Your task to perform on an android device: install app "Duolingo: language lessons" Image 0: 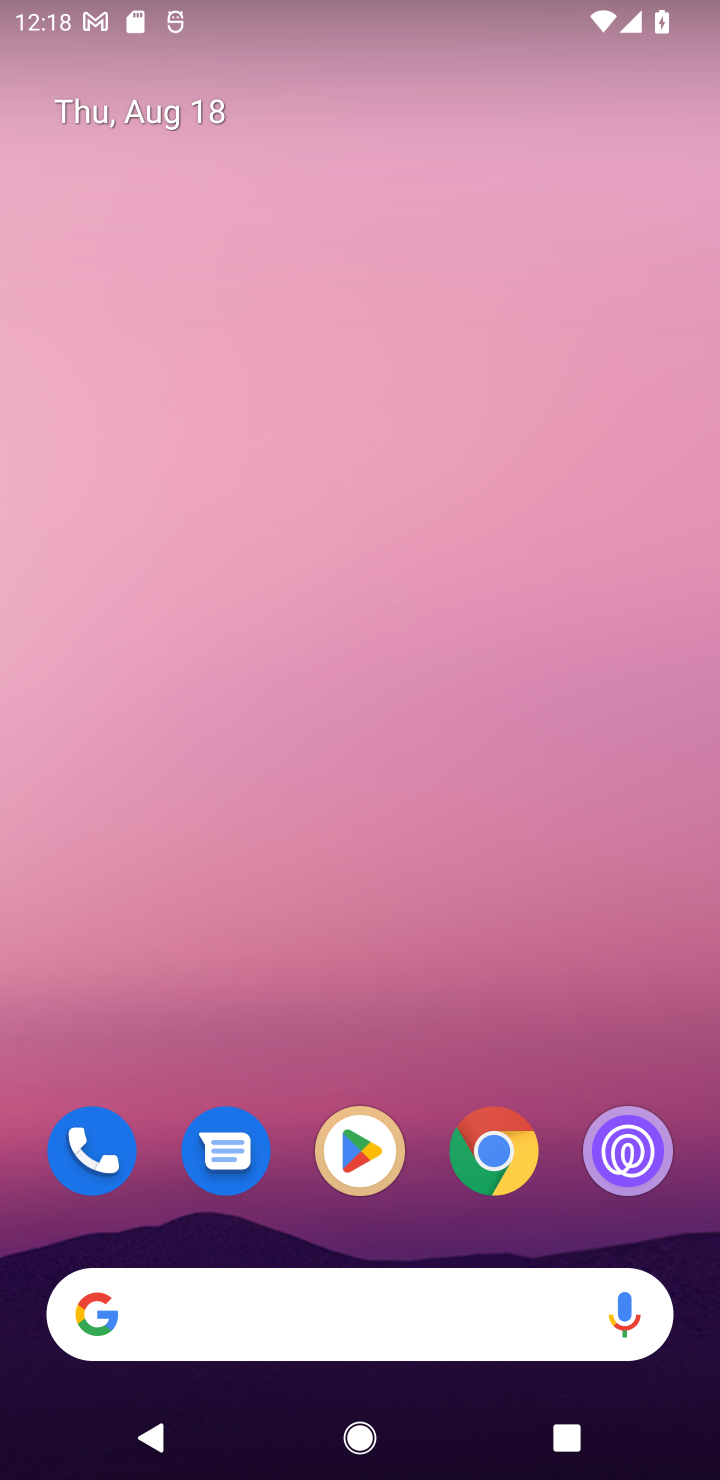
Step 0: click (369, 1228)
Your task to perform on an android device: install app "Duolingo: language lessons" Image 1: 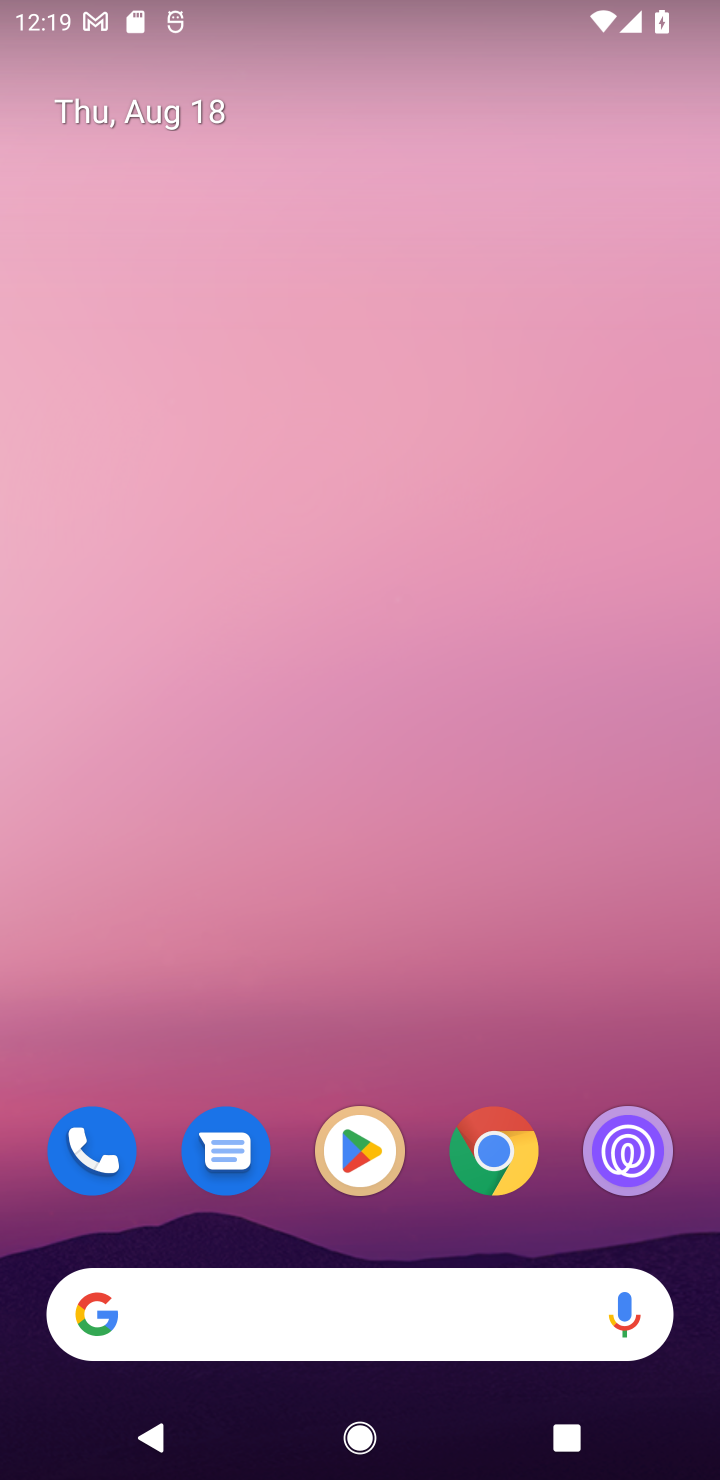
Step 1: click (365, 1152)
Your task to perform on an android device: install app "Duolingo: language lessons" Image 2: 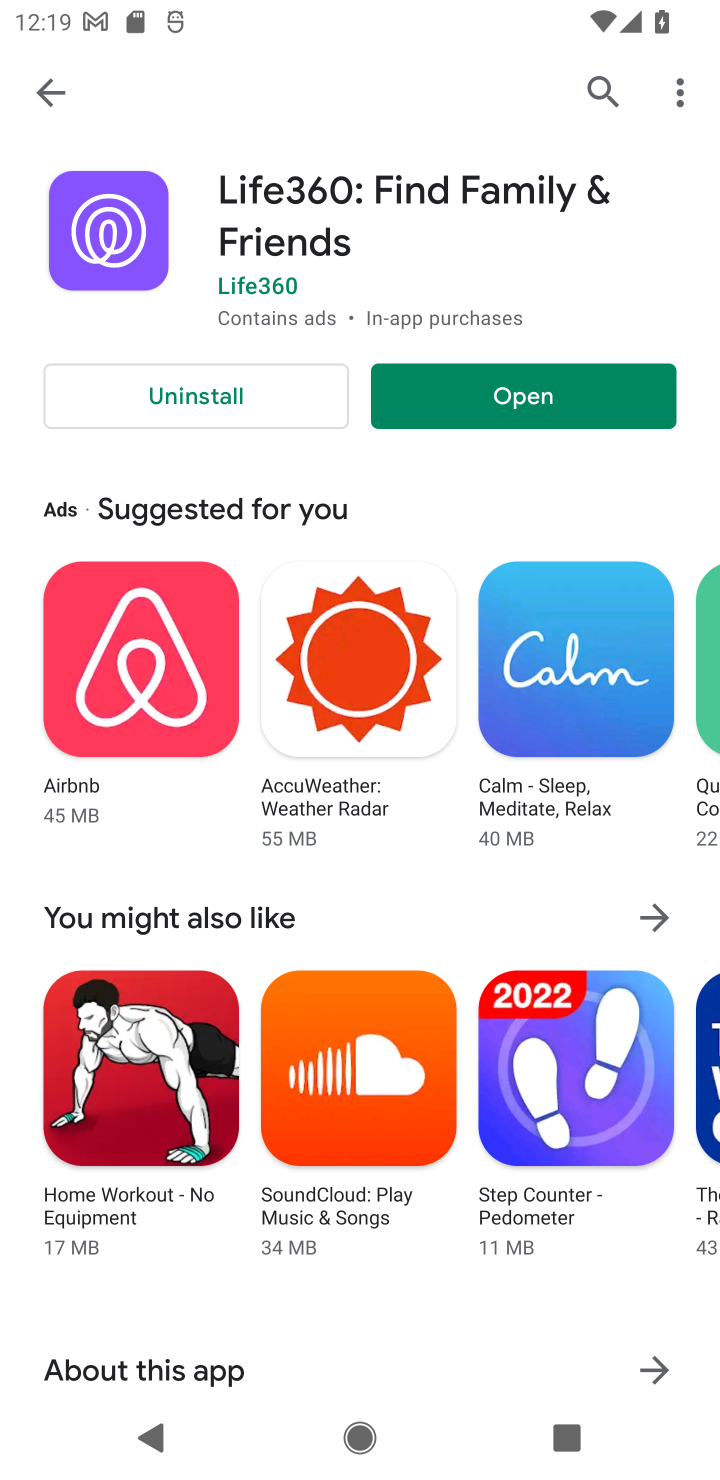
Step 2: click (47, 86)
Your task to perform on an android device: install app "Duolingo: language lessons" Image 3: 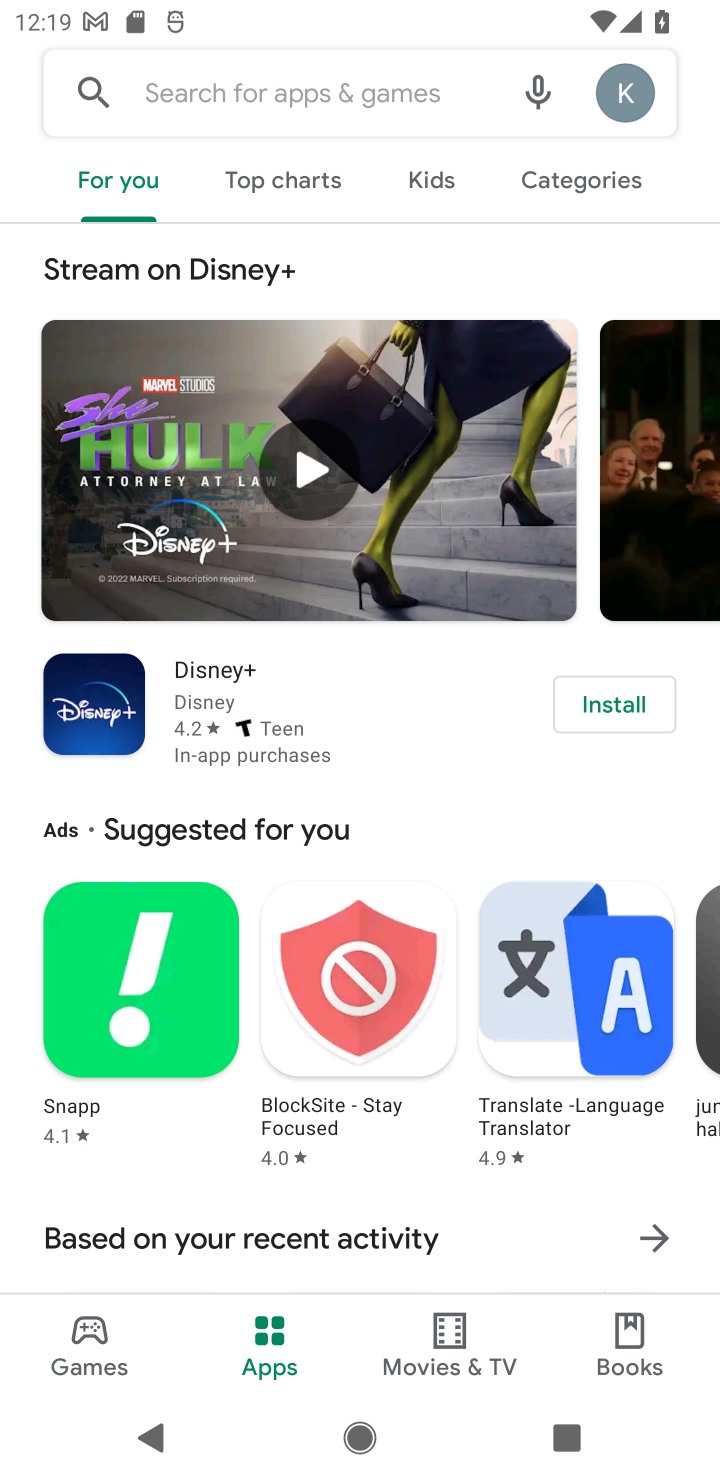
Step 3: click (397, 102)
Your task to perform on an android device: install app "Duolingo: language lessons" Image 4: 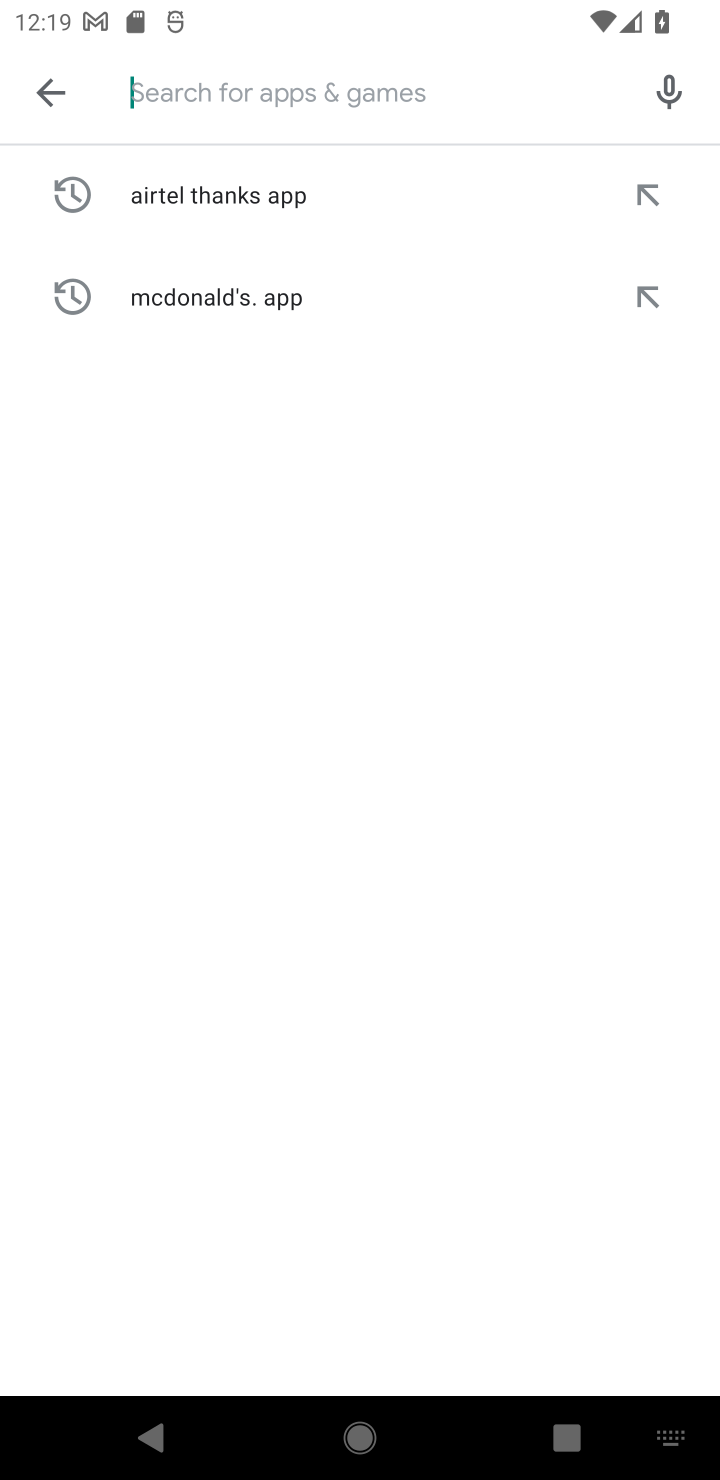
Step 4: type "Duolingo: language lessons"
Your task to perform on an android device: install app "Duolingo: language lessons" Image 5: 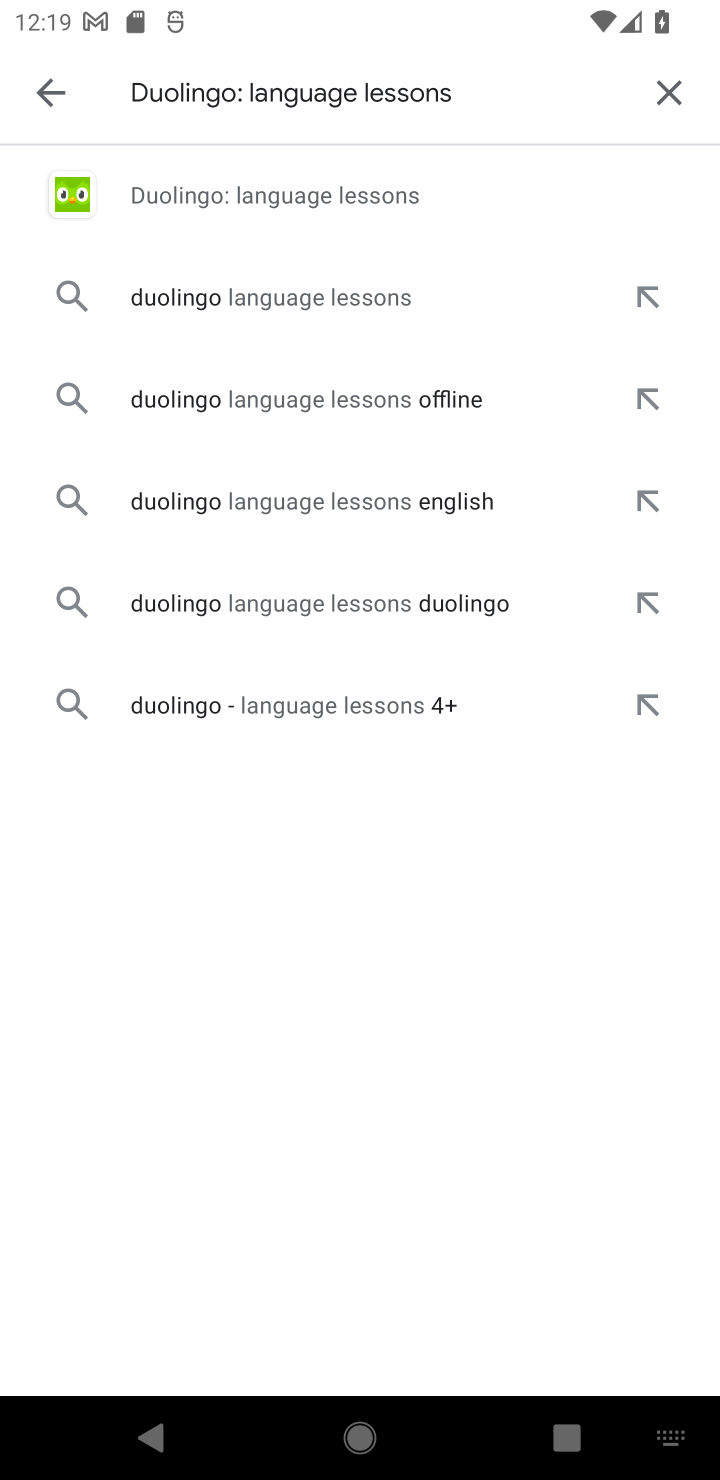
Step 5: click (253, 198)
Your task to perform on an android device: install app "Duolingo: language lessons" Image 6: 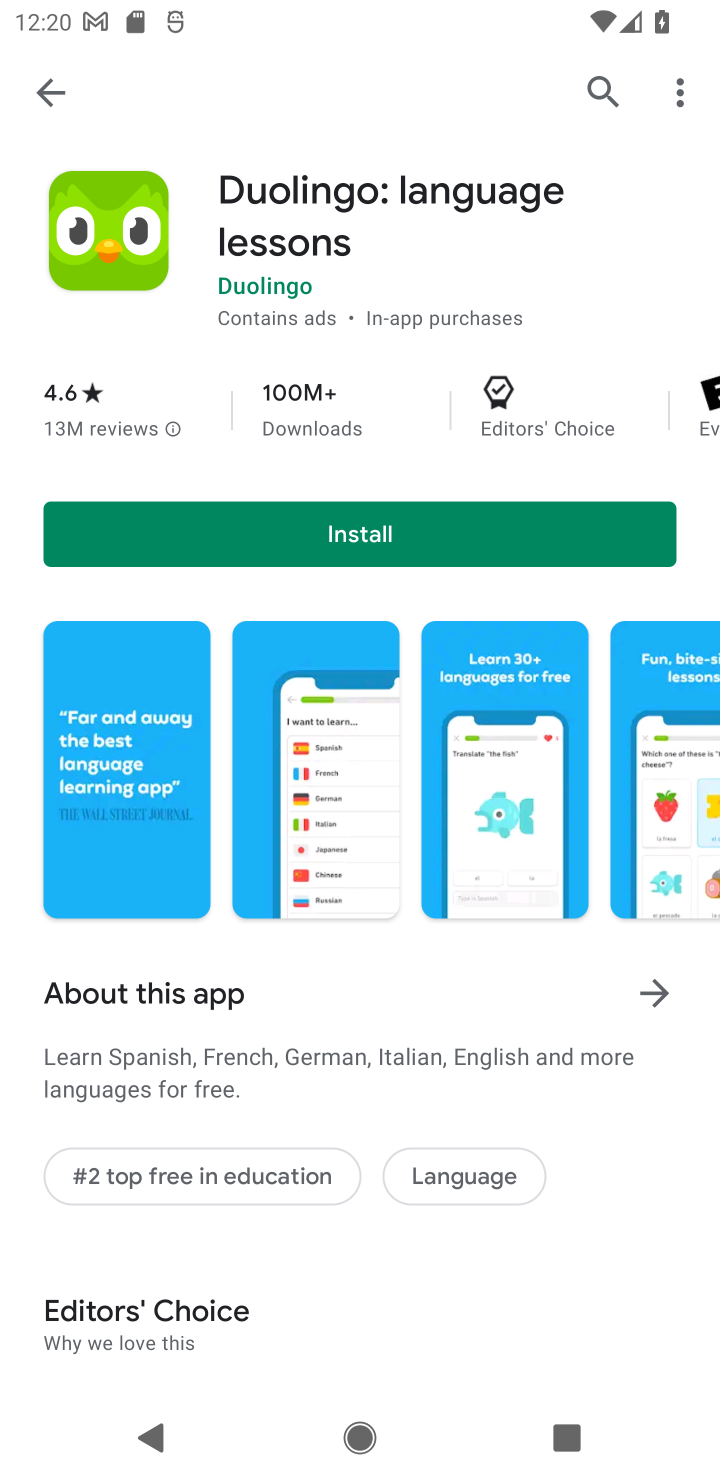
Step 6: click (358, 545)
Your task to perform on an android device: install app "Duolingo: language lessons" Image 7: 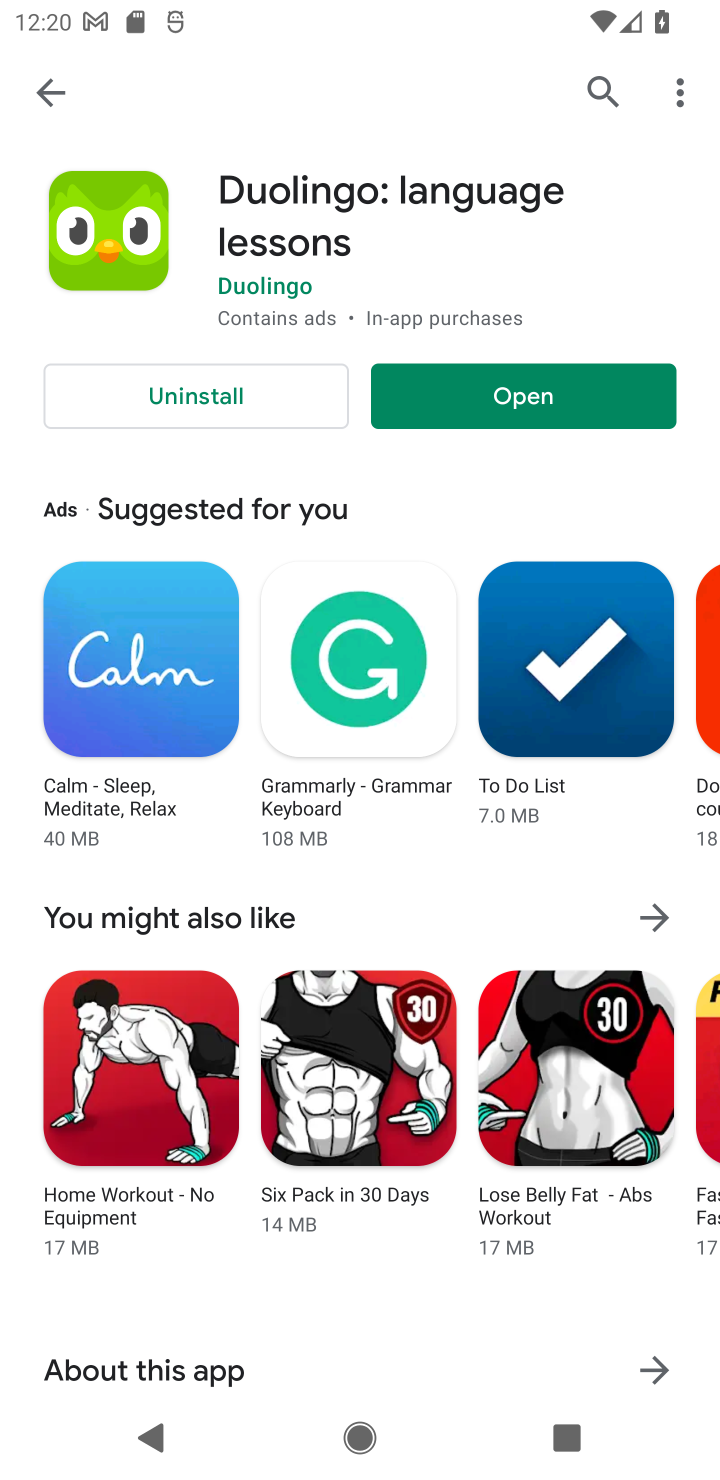
Step 7: click (512, 372)
Your task to perform on an android device: install app "Duolingo: language lessons" Image 8: 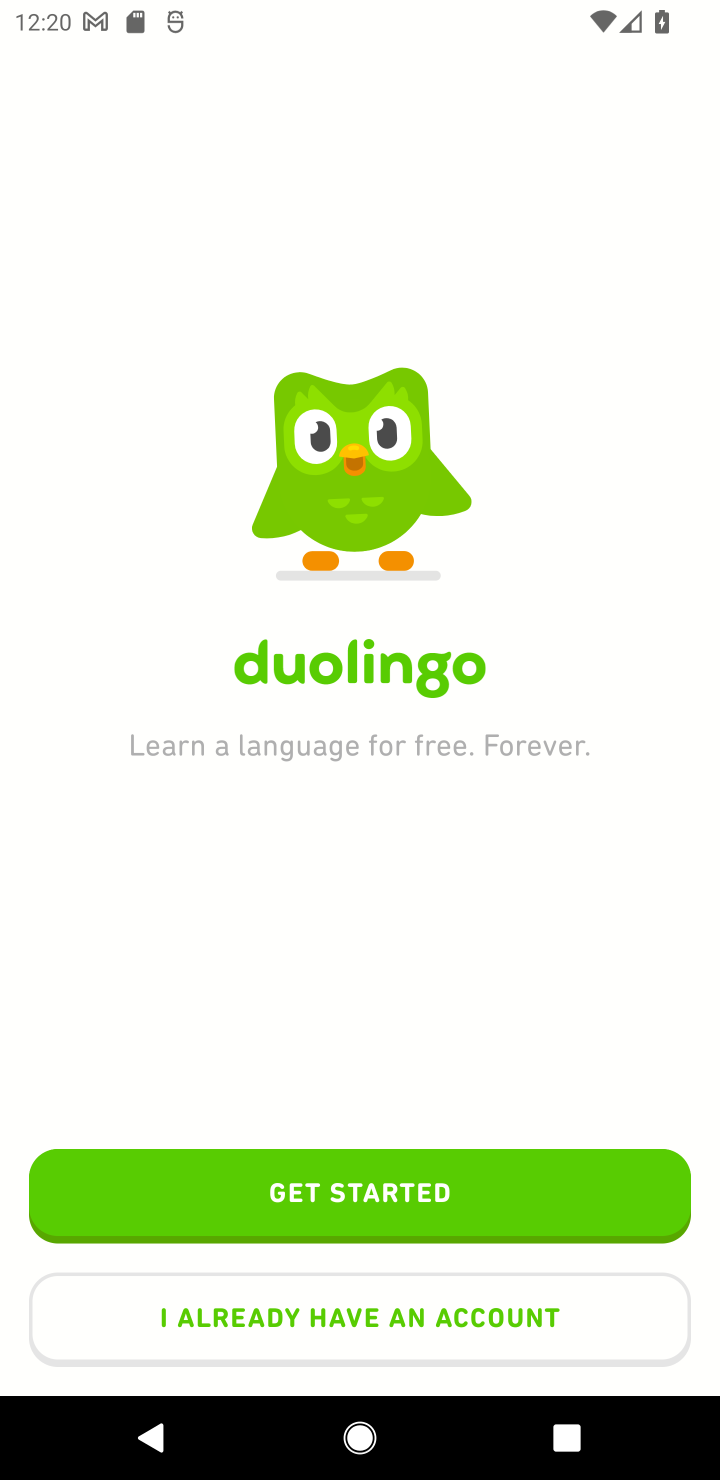
Step 8: task complete